Your task to perform on an android device: turn off improve location accuracy Image 0: 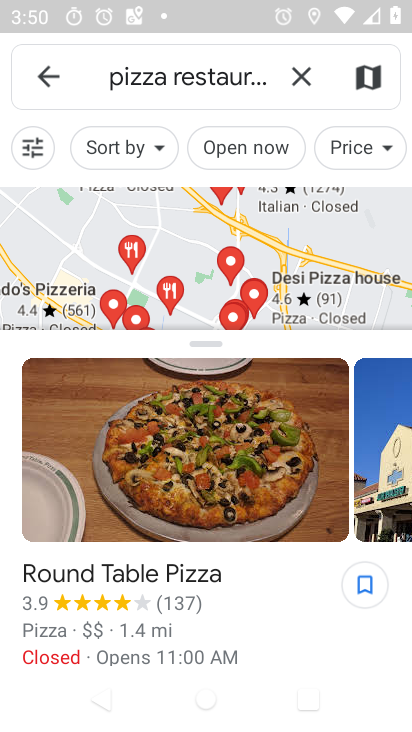
Step 0: press home button
Your task to perform on an android device: turn off improve location accuracy Image 1: 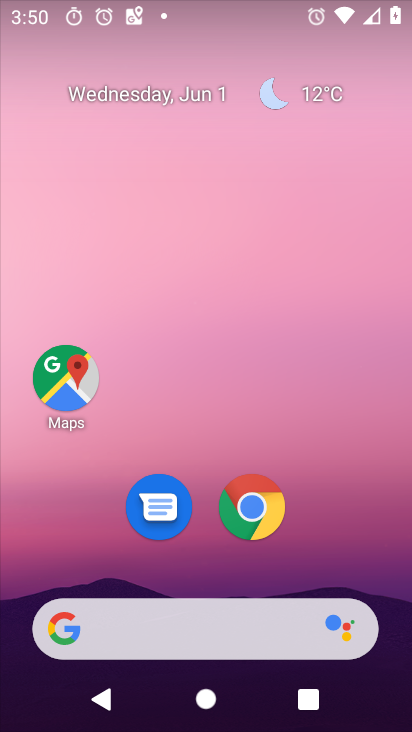
Step 1: drag from (298, 585) to (319, 2)
Your task to perform on an android device: turn off improve location accuracy Image 2: 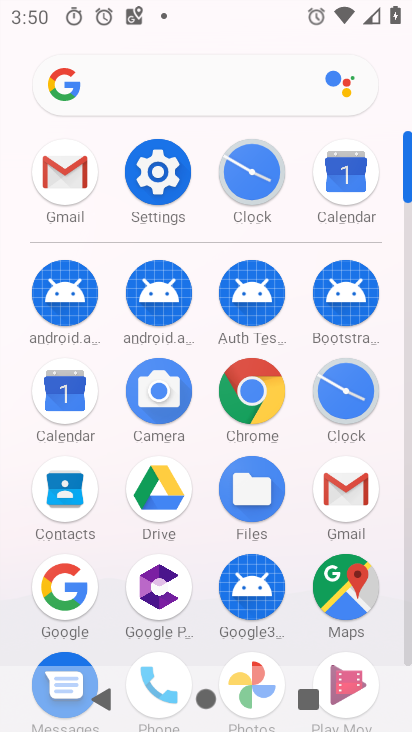
Step 2: click (161, 176)
Your task to perform on an android device: turn off improve location accuracy Image 3: 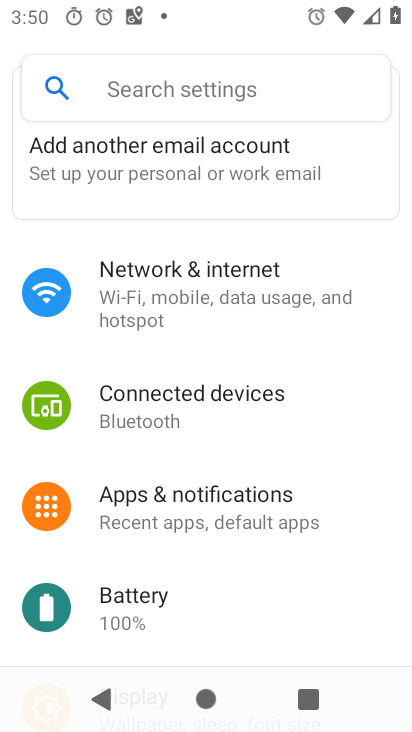
Step 3: drag from (390, 543) to (382, 173)
Your task to perform on an android device: turn off improve location accuracy Image 4: 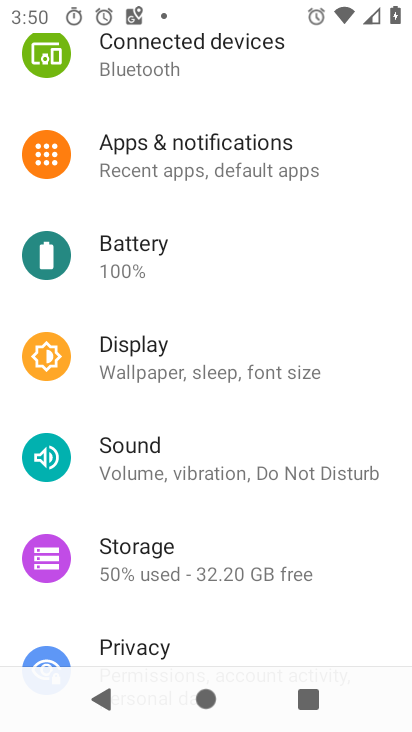
Step 4: drag from (370, 483) to (368, 228)
Your task to perform on an android device: turn off improve location accuracy Image 5: 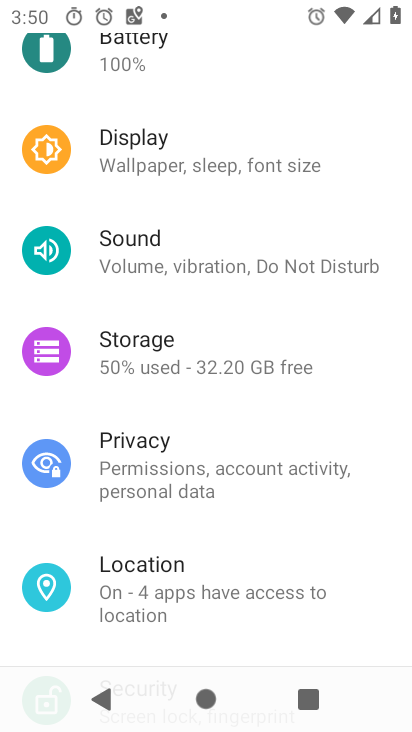
Step 5: click (146, 585)
Your task to perform on an android device: turn off improve location accuracy Image 6: 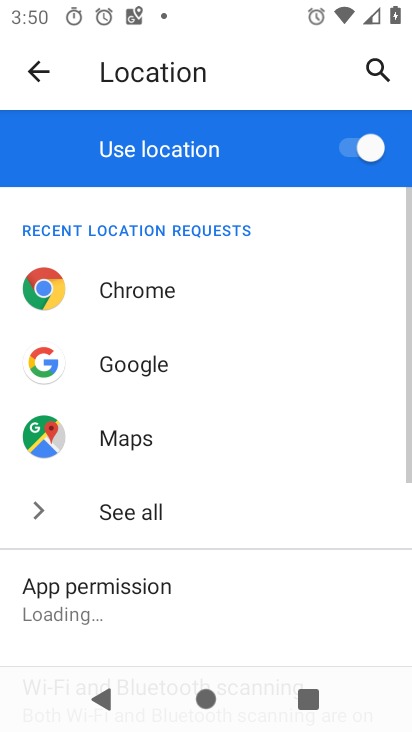
Step 6: drag from (291, 554) to (297, 167)
Your task to perform on an android device: turn off improve location accuracy Image 7: 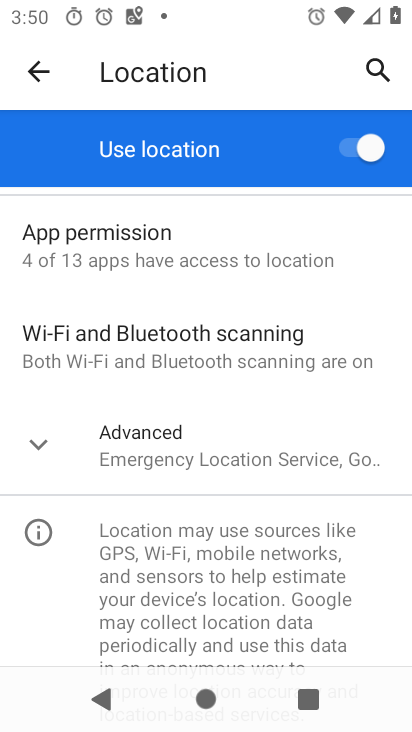
Step 7: click (36, 454)
Your task to perform on an android device: turn off improve location accuracy Image 8: 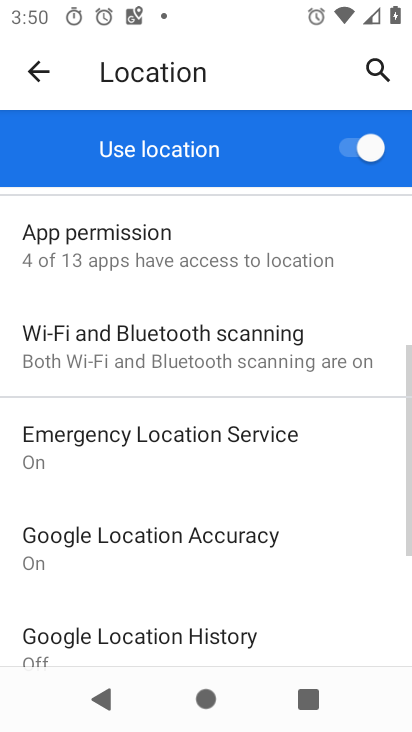
Step 8: click (166, 536)
Your task to perform on an android device: turn off improve location accuracy Image 9: 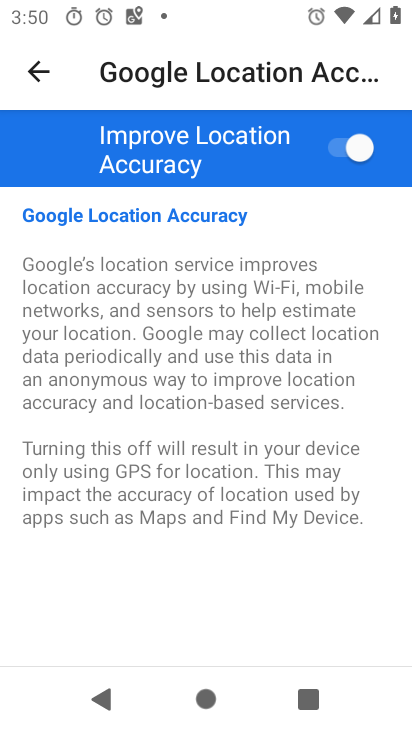
Step 9: click (356, 139)
Your task to perform on an android device: turn off improve location accuracy Image 10: 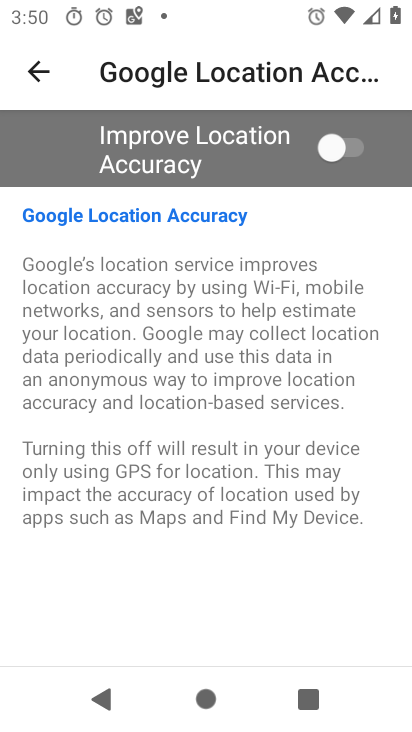
Step 10: task complete